Your task to perform on an android device: What's the weather going to be tomorrow? Image 0: 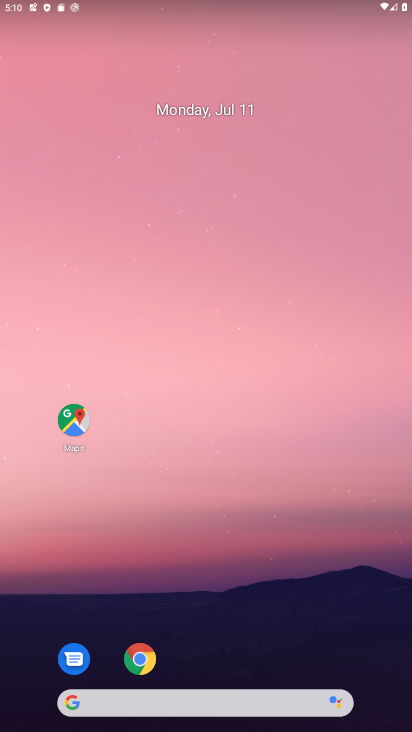
Step 0: drag from (3, 230) to (340, 207)
Your task to perform on an android device: What's the weather going to be tomorrow? Image 1: 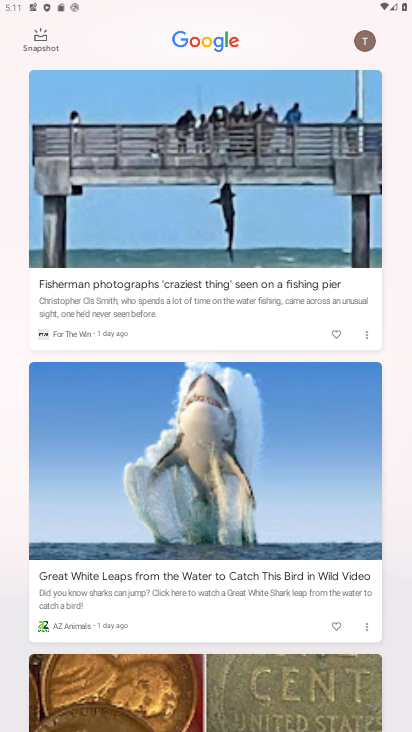
Step 1: task complete